Your task to perform on an android device: What is the recent news? Image 0: 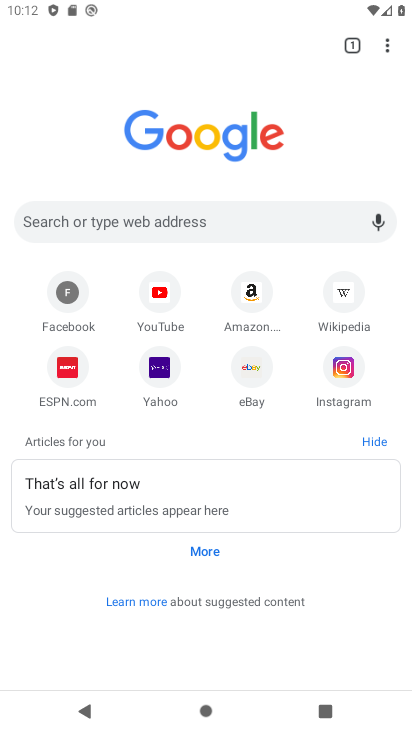
Step 0: press home button
Your task to perform on an android device: What is the recent news? Image 1: 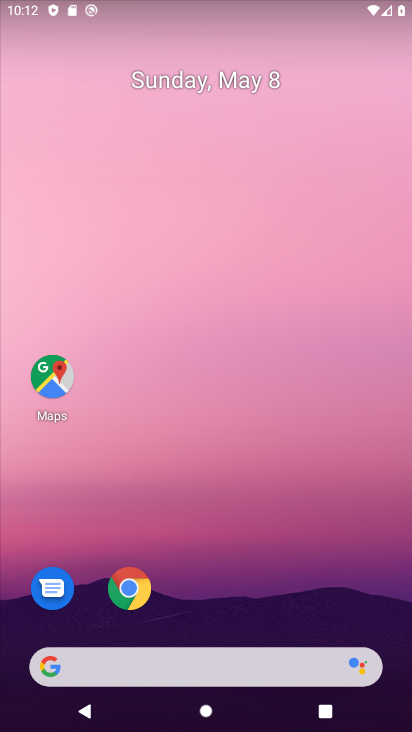
Step 1: task complete